Your task to perform on an android device: Check the news Image 0: 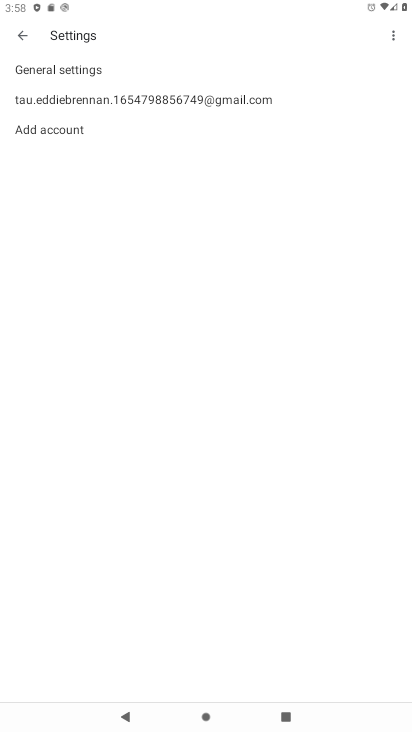
Step 0: press home button
Your task to perform on an android device: Check the news Image 1: 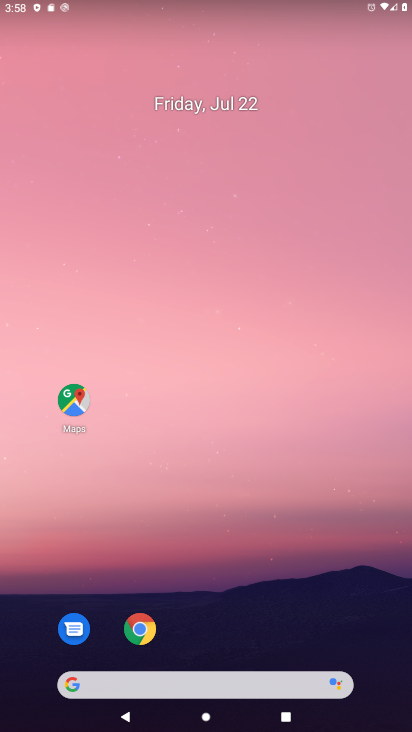
Step 1: drag from (284, 614) to (203, 94)
Your task to perform on an android device: Check the news Image 2: 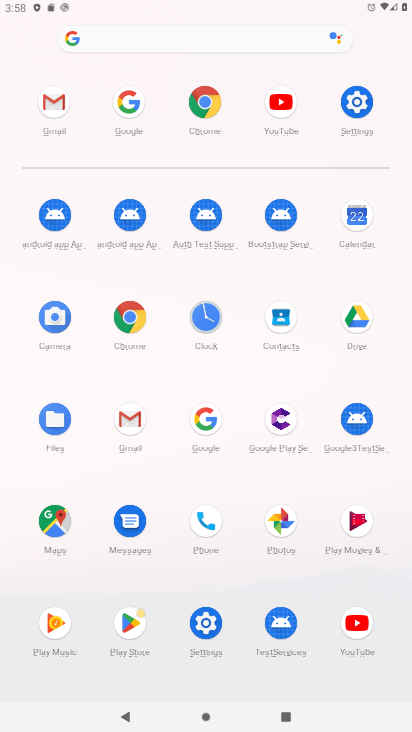
Step 2: click (198, 103)
Your task to perform on an android device: Check the news Image 3: 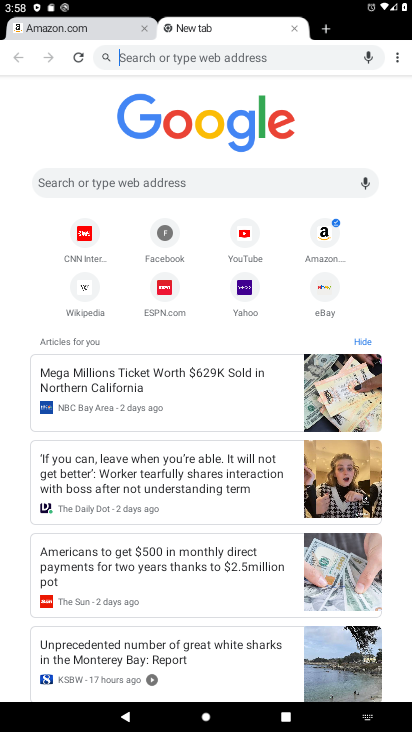
Step 3: click (182, 66)
Your task to perform on an android device: Check the news Image 4: 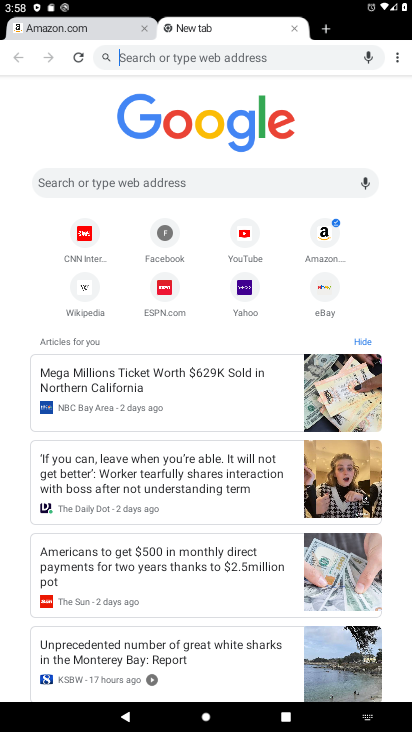
Step 4: type "news"
Your task to perform on an android device: Check the news Image 5: 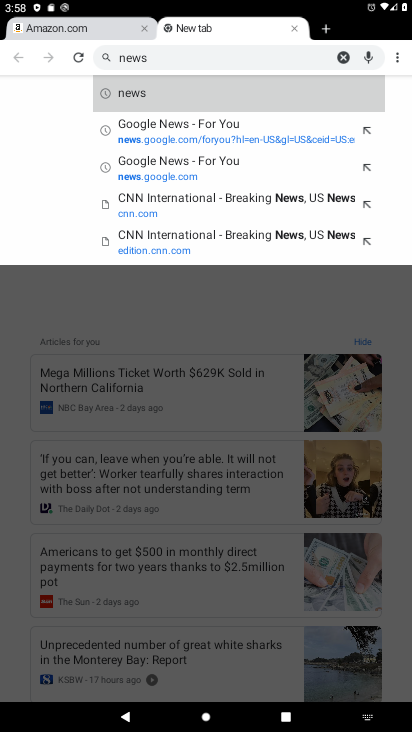
Step 5: click (197, 102)
Your task to perform on an android device: Check the news Image 6: 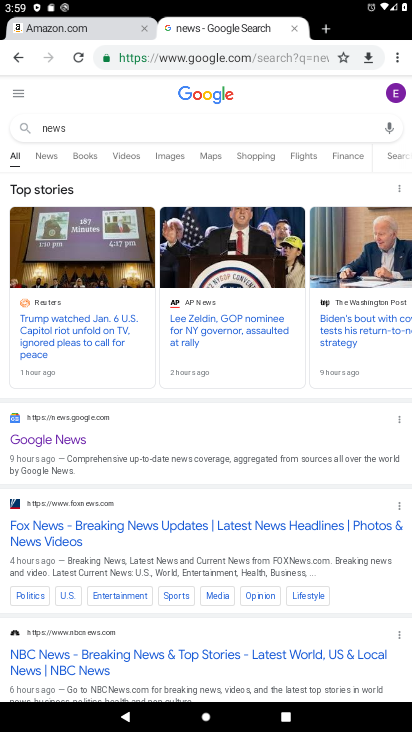
Step 6: click (58, 437)
Your task to perform on an android device: Check the news Image 7: 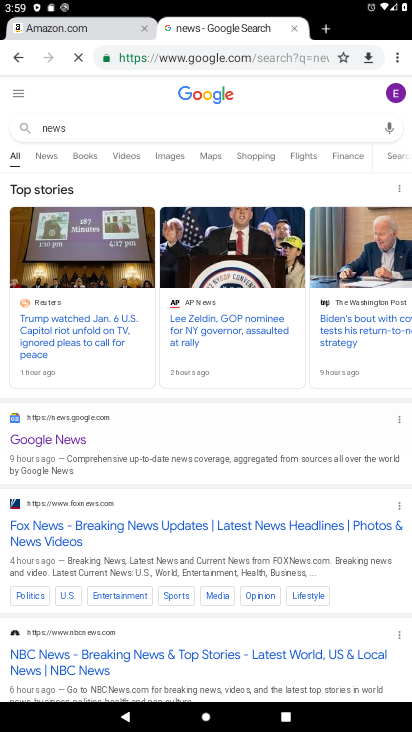
Step 7: click (61, 445)
Your task to perform on an android device: Check the news Image 8: 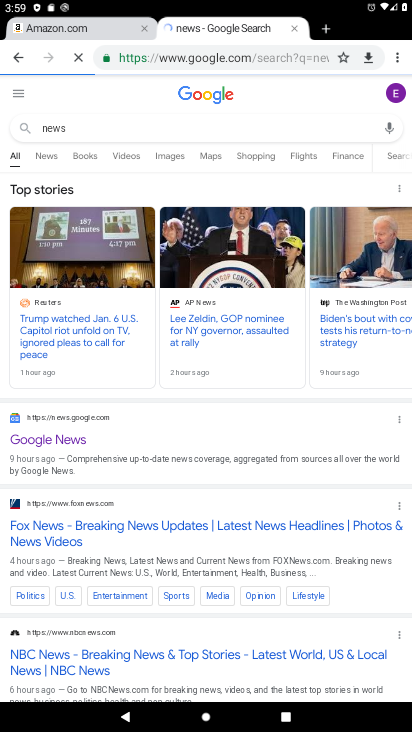
Step 8: click (63, 439)
Your task to perform on an android device: Check the news Image 9: 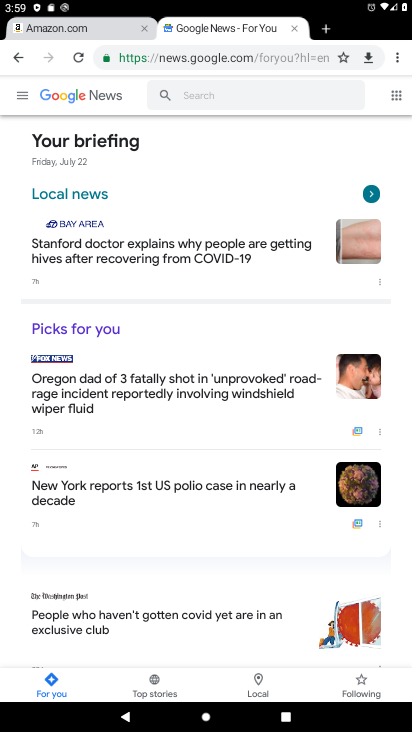
Step 9: task complete